Your task to perform on an android device: turn notification dots on Image 0: 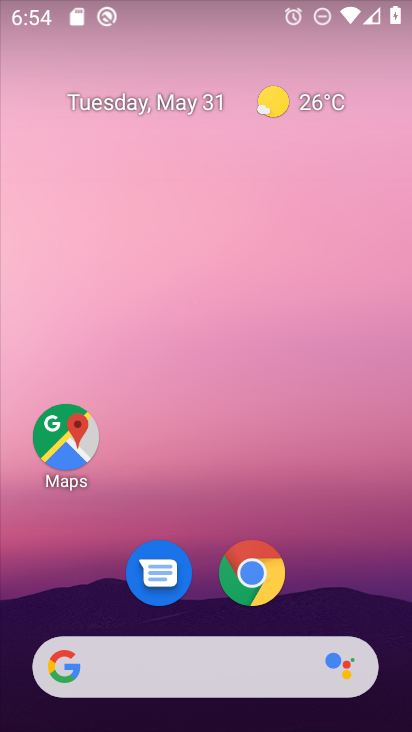
Step 0: drag from (379, 646) to (292, 0)
Your task to perform on an android device: turn notification dots on Image 1: 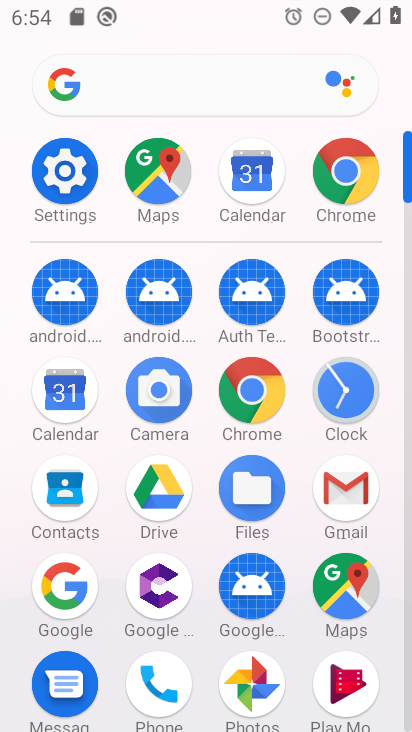
Step 1: click (78, 180)
Your task to perform on an android device: turn notification dots on Image 2: 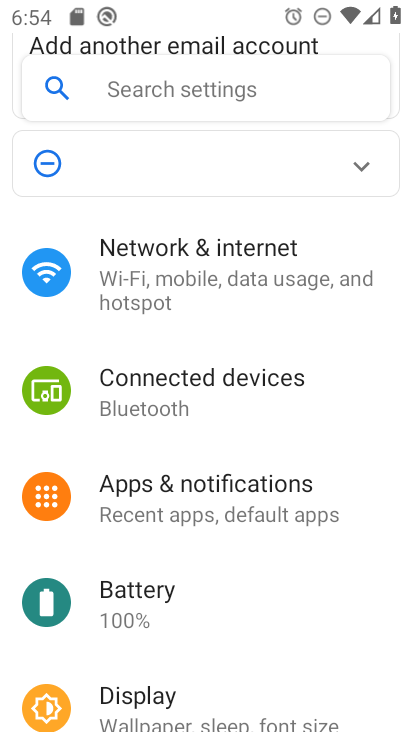
Step 2: click (184, 492)
Your task to perform on an android device: turn notification dots on Image 3: 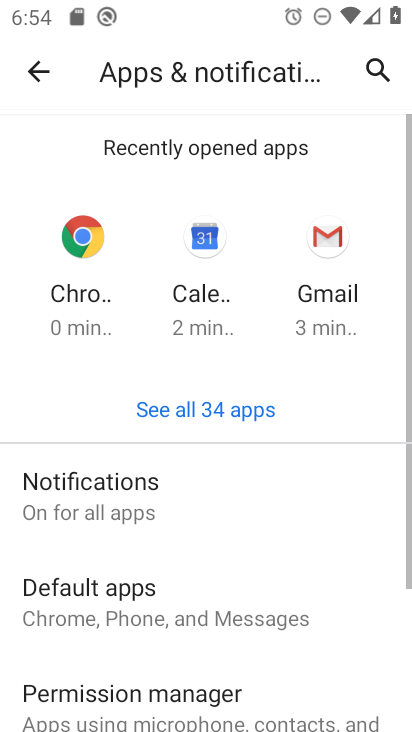
Step 3: click (184, 492)
Your task to perform on an android device: turn notification dots on Image 4: 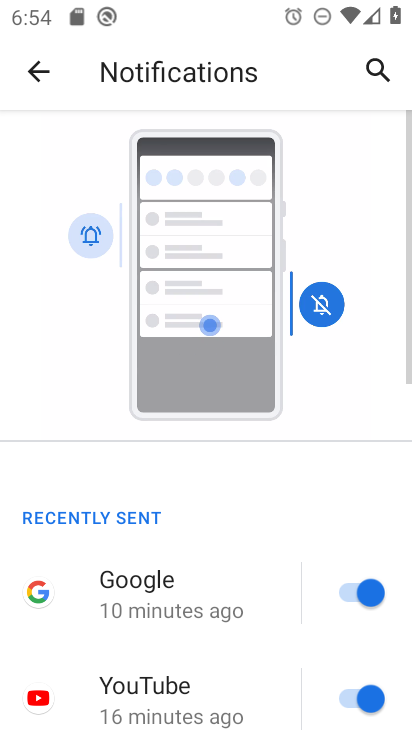
Step 4: drag from (195, 625) to (204, 93)
Your task to perform on an android device: turn notification dots on Image 5: 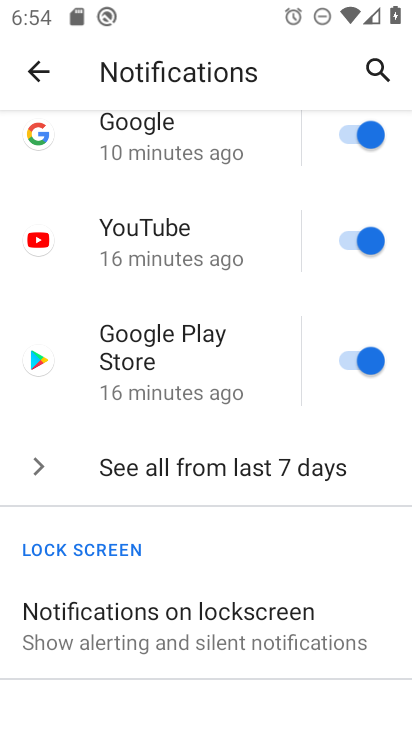
Step 5: drag from (193, 631) to (210, 173)
Your task to perform on an android device: turn notification dots on Image 6: 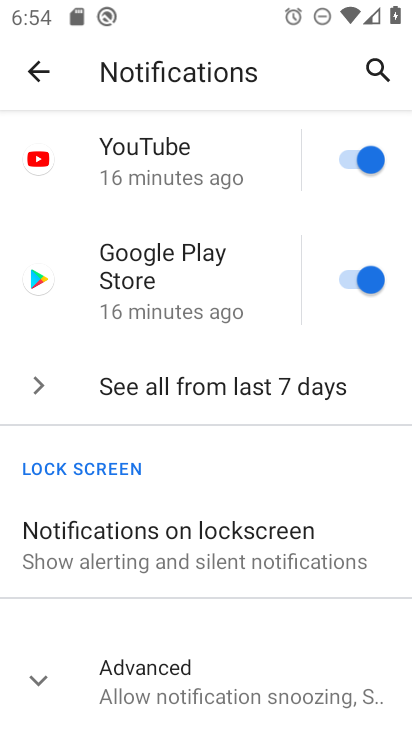
Step 6: click (122, 665)
Your task to perform on an android device: turn notification dots on Image 7: 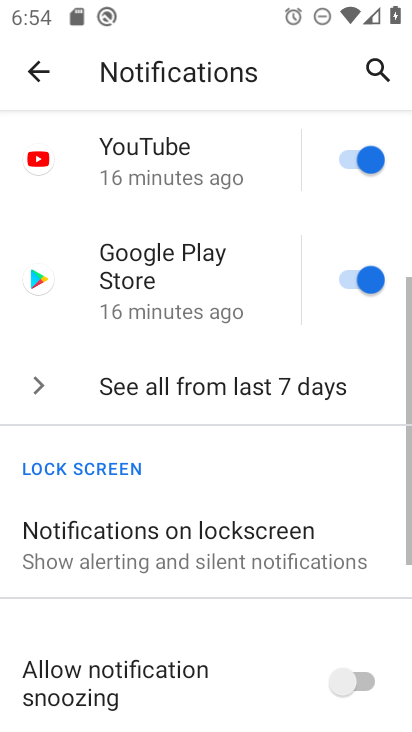
Step 7: task complete